Your task to perform on an android device: Set the phone to "Do not disturb". Image 0: 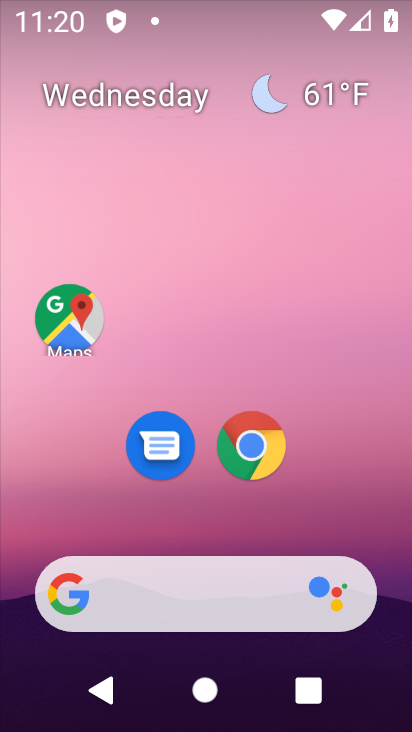
Step 0: drag from (327, 517) to (329, 190)
Your task to perform on an android device: Set the phone to "Do not disturb". Image 1: 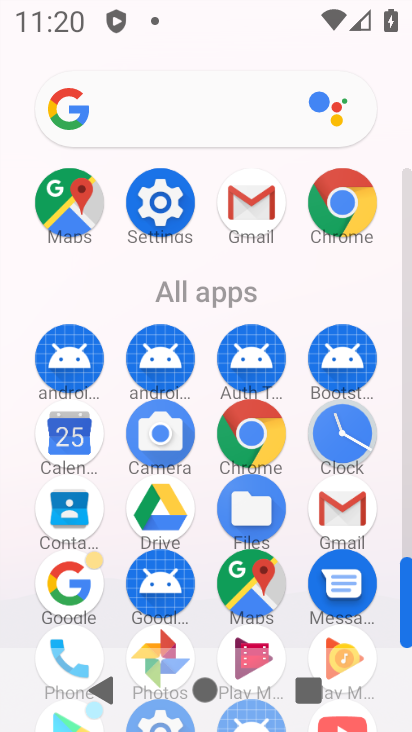
Step 1: click (152, 164)
Your task to perform on an android device: Set the phone to "Do not disturb". Image 2: 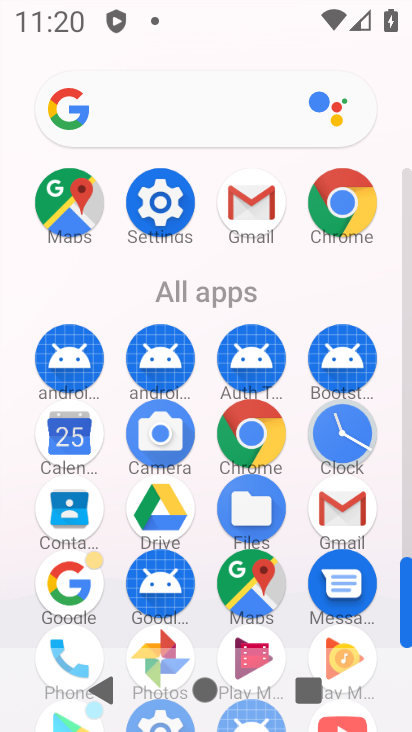
Step 2: click (161, 201)
Your task to perform on an android device: Set the phone to "Do not disturb". Image 3: 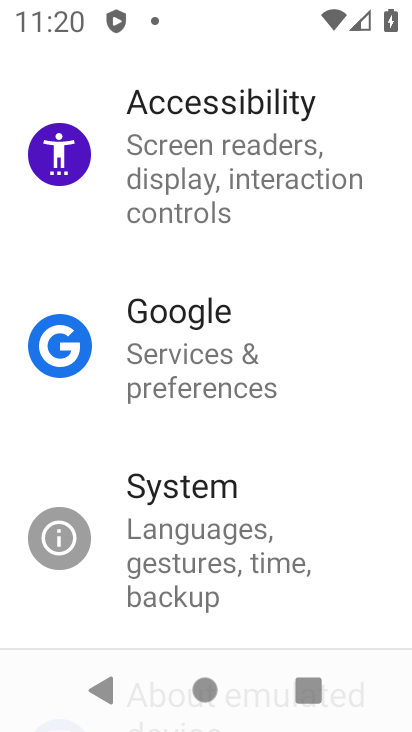
Step 3: drag from (285, 216) to (282, 543)
Your task to perform on an android device: Set the phone to "Do not disturb". Image 4: 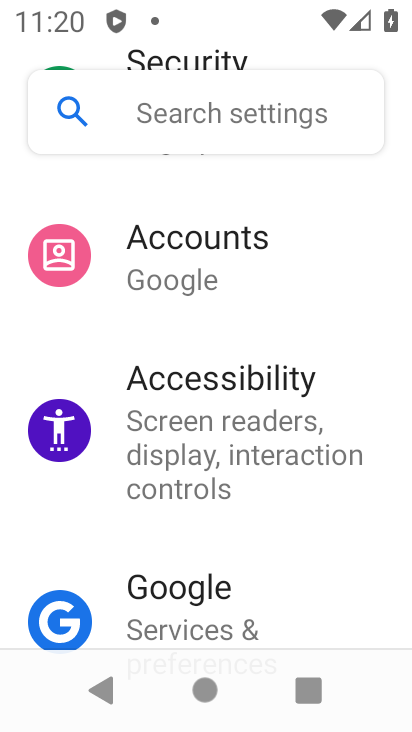
Step 4: drag from (295, 298) to (268, 578)
Your task to perform on an android device: Set the phone to "Do not disturb". Image 5: 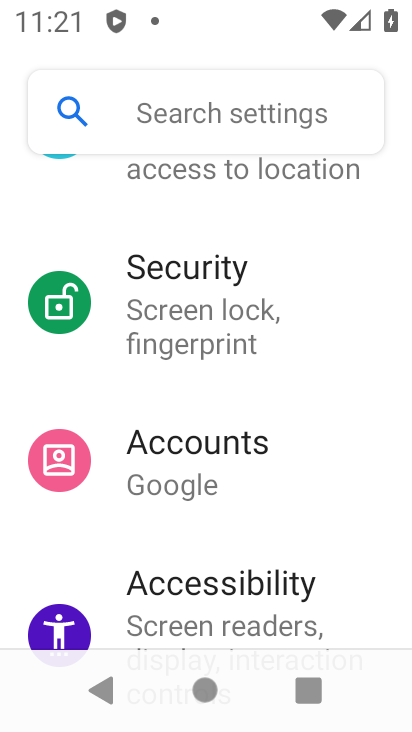
Step 5: drag from (294, 240) to (259, 610)
Your task to perform on an android device: Set the phone to "Do not disturb". Image 6: 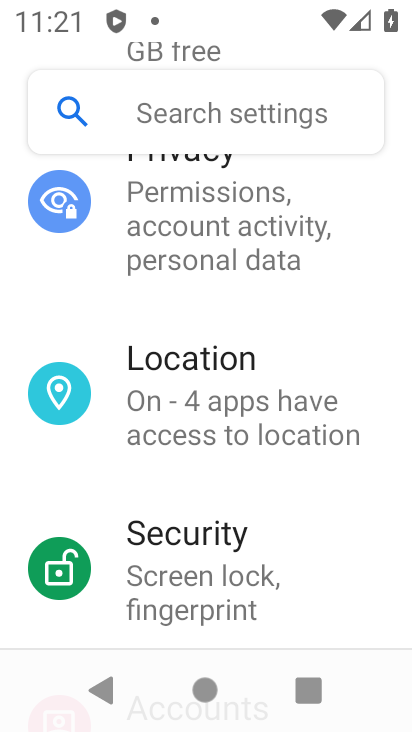
Step 6: drag from (260, 286) to (267, 617)
Your task to perform on an android device: Set the phone to "Do not disturb". Image 7: 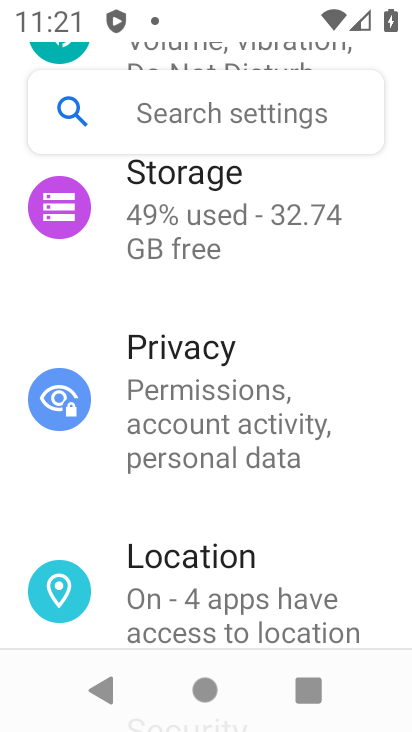
Step 7: drag from (205, 288) to (221, 593)
Your task to perform on an android device: Set the phone to "Do not disturb". Image 8: 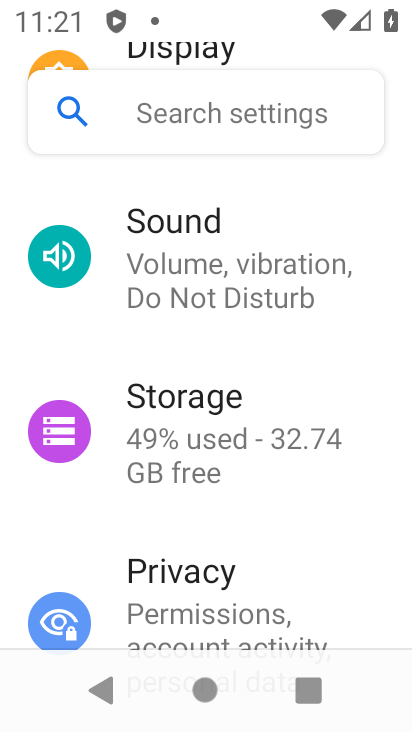
Step 8: click (151, 291)
Your task to perform on an android device: Set the phone to "Do not disturb". Image 9: 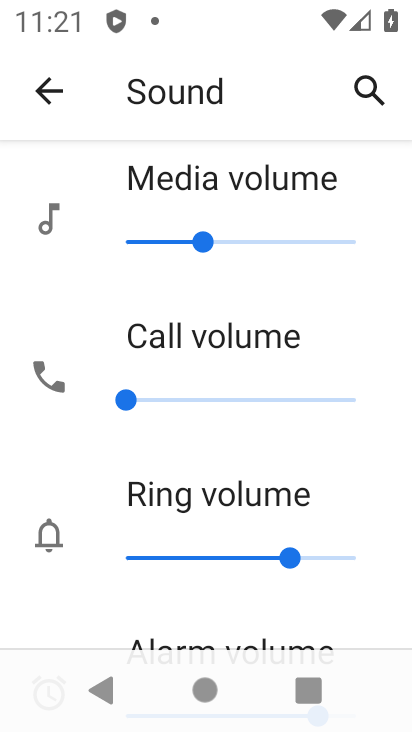
Step 9: drag from (206, 585) to (243, 195)
Your task to perform on an android device: Set the phone to "Do not disturb". Image 10: 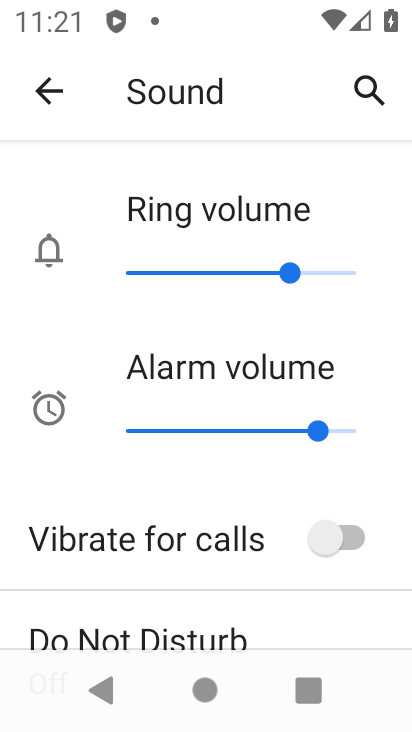
Step 10: drag from (204, 497) to (236, 170)
Your task to perform on an android device: Set the phone to "Do not disturb". Image 11: 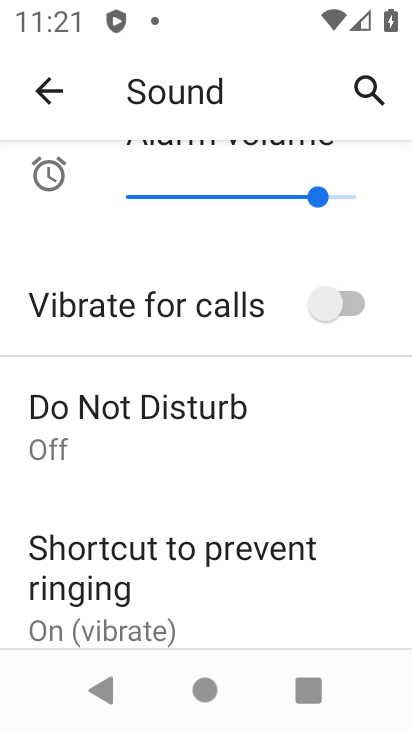
Step 11: click (167, 406)
Your task to perform on an android device: Set the phone to "Do not disturb". Image 12: 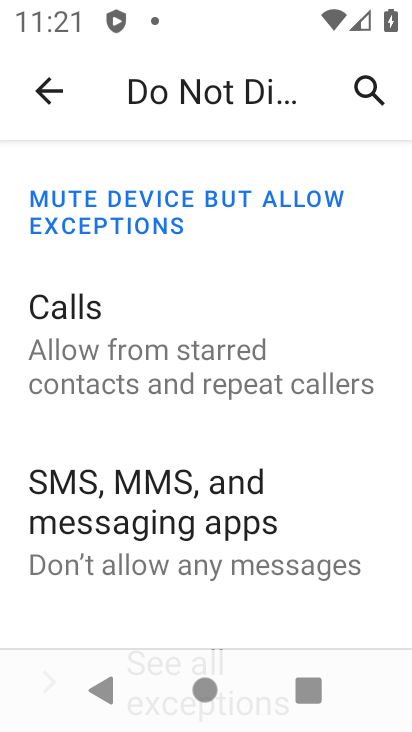
Step 12: drag from (285, 236) to (274, 517)
Your task to perform on an android device: Set the phone to "Do not disturb". Image 13: 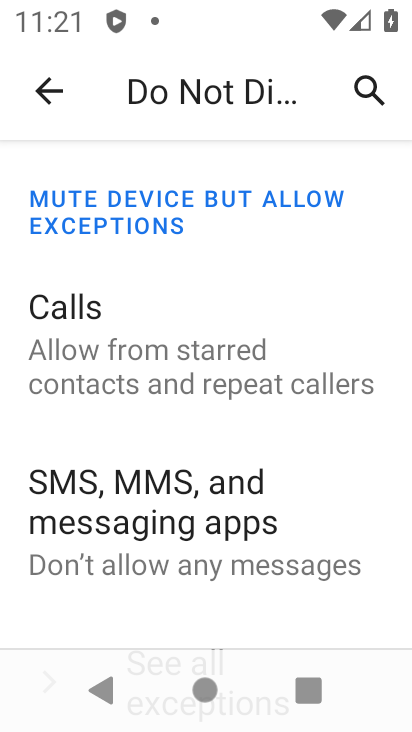
Step 13: drag from (263, 578) to (318, 188)
Your task to perform on an android device: Set the phone to "Do not disturb". Image 14: 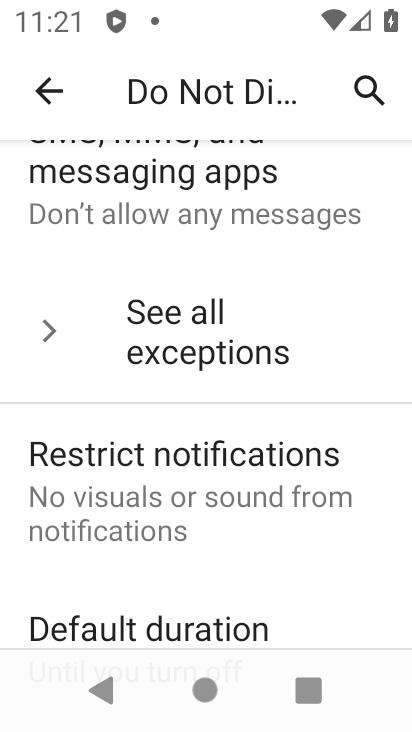
Step 14: drag from (256, 565) to (304, 189)
Your task to perform on an android device: Set the phone to "Do not disturb". Image 15: 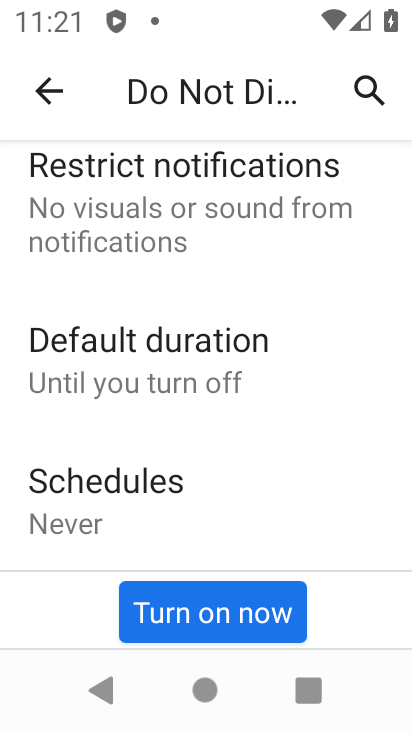
Step 15: drag from (235, 572) to (278, 335)
Your task to perform on an android device: Set the phone to "Do not disturb". Image 16: 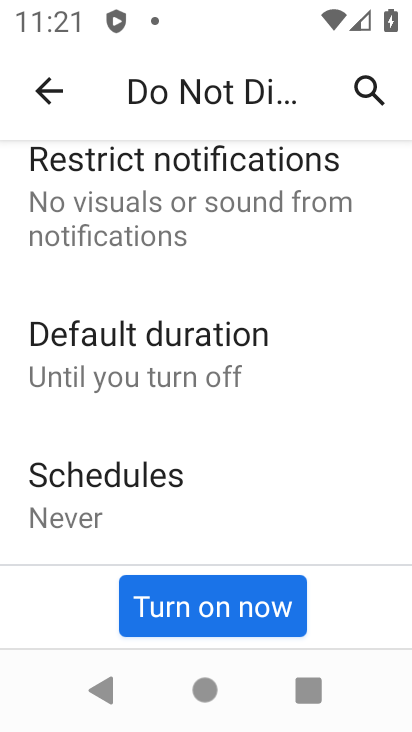
Step 16: click (224, 600)
Your task to perform on an android device: Set the phone to "Do not disturb". Image 17: 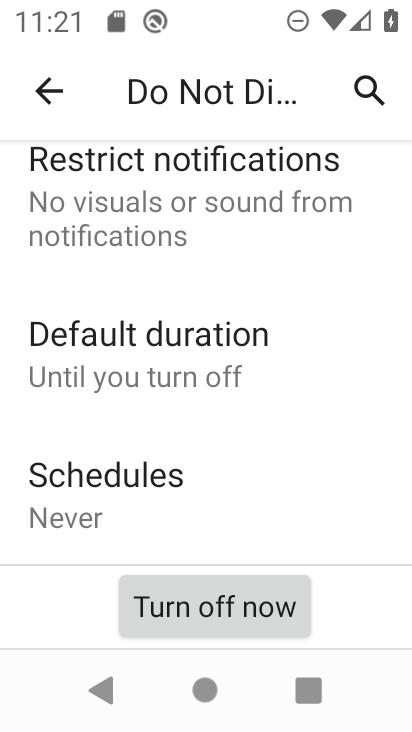
Step 17: task complete